Your task to perform on an android device: Open network settings Image 0: 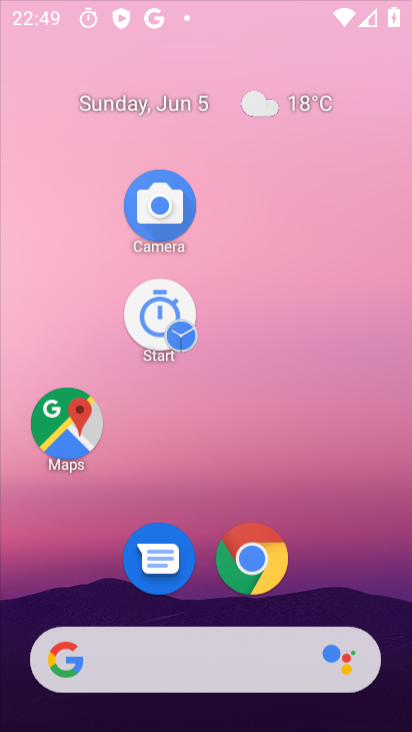
Step 0: drag from (298, 699) to (190, 128)
Your task to perform on an android device: Open network settings Image 1: 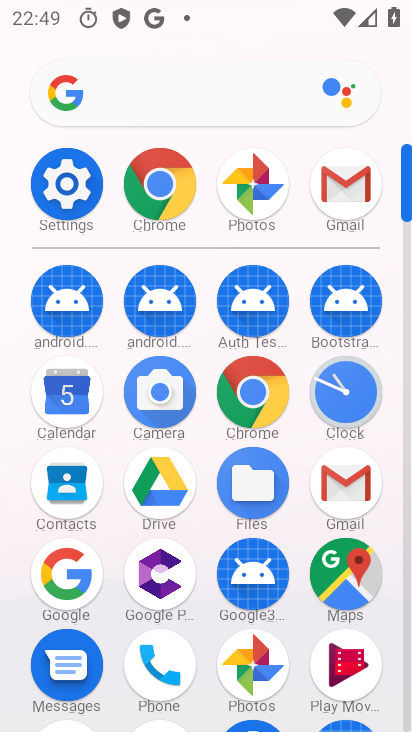
Step 1: click (323, 387)
Your task to perform on an android device: Open network settings Image 2: 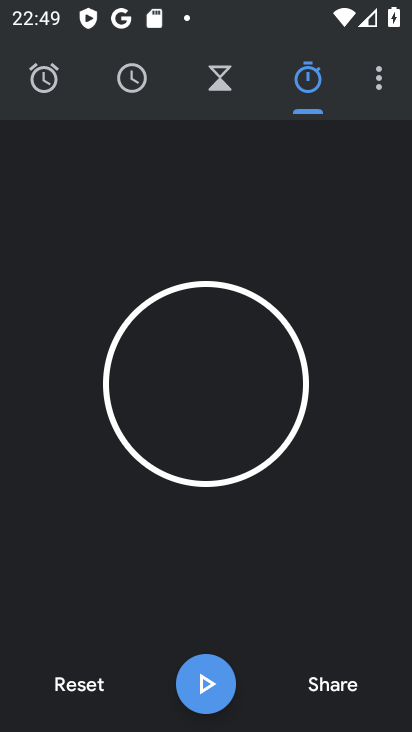
Step 2: click (26, 78)
Your task to perform on an android device: Open network settings Image 3: 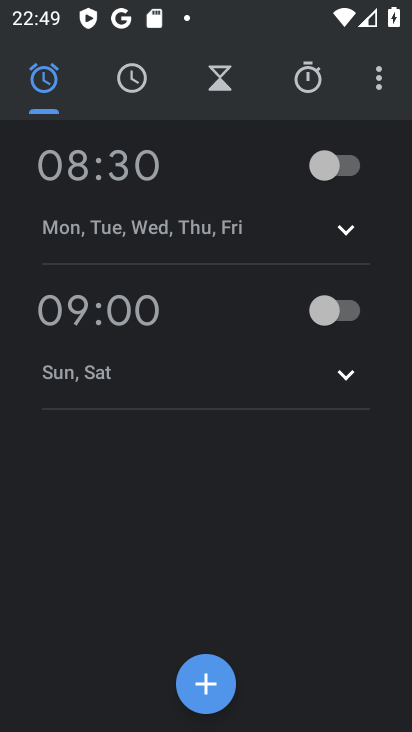
Step 3: click (318, 166)
Your task to perform on an android device: Open network settings Image 4: 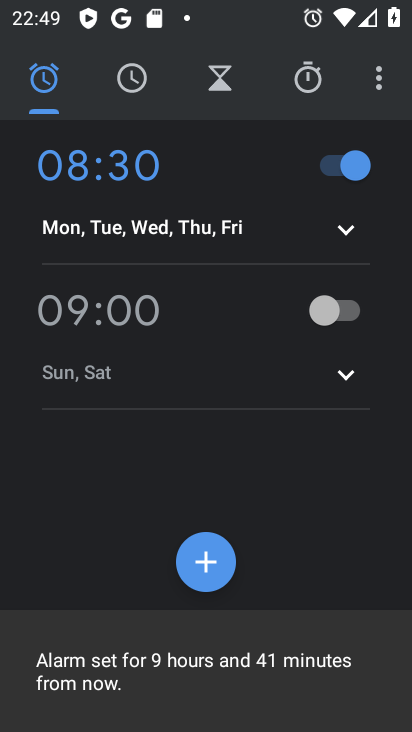
Step 4: task complete